Your task to perform on an android device: check battery use Image 0: 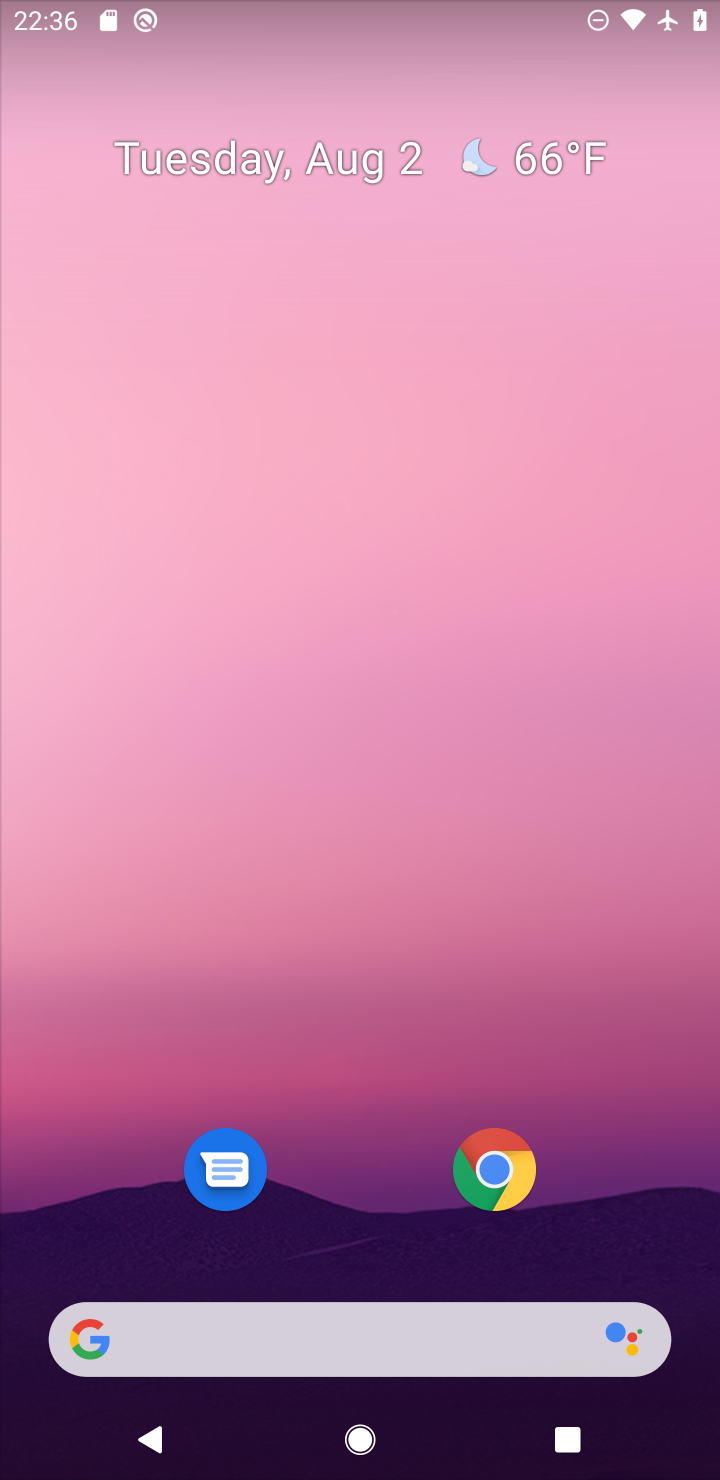
Step 0: drag from (338, 1249) to (310, 55)
Your task to perform on an android device: check battery use Image 1: 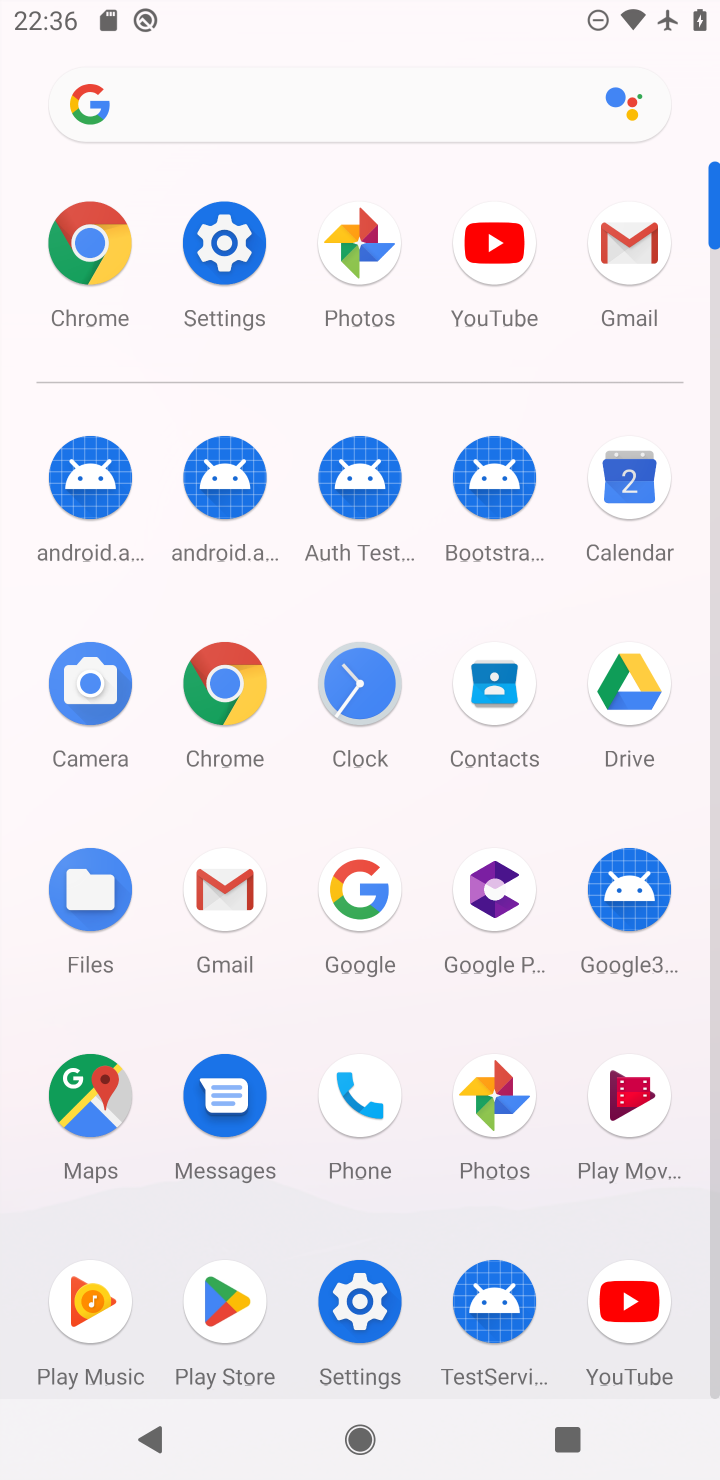
Step 1: click (203, 231)
Your task to perform on an android device: check battery use Image 2: 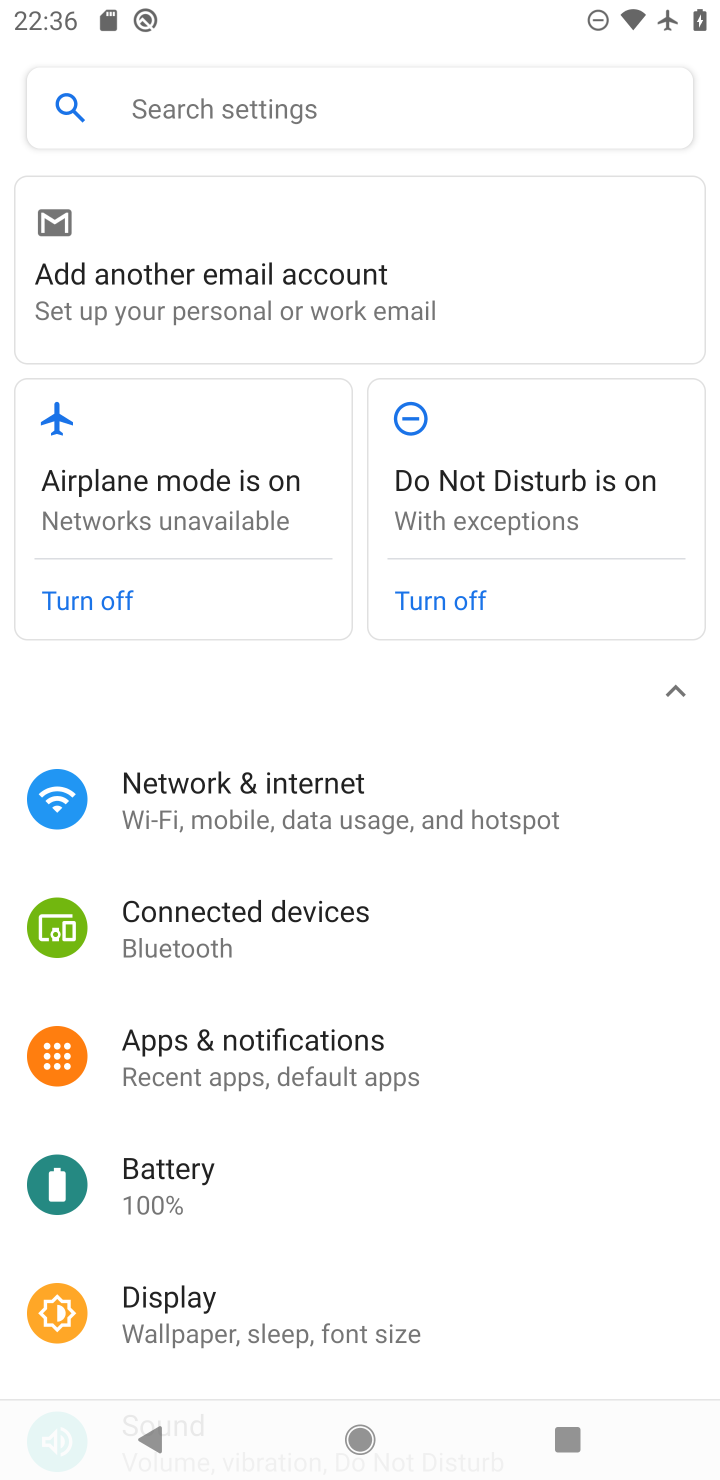
Step 2: click (130, 1176)
Your task to perform on an android device: check battery use Image 3: 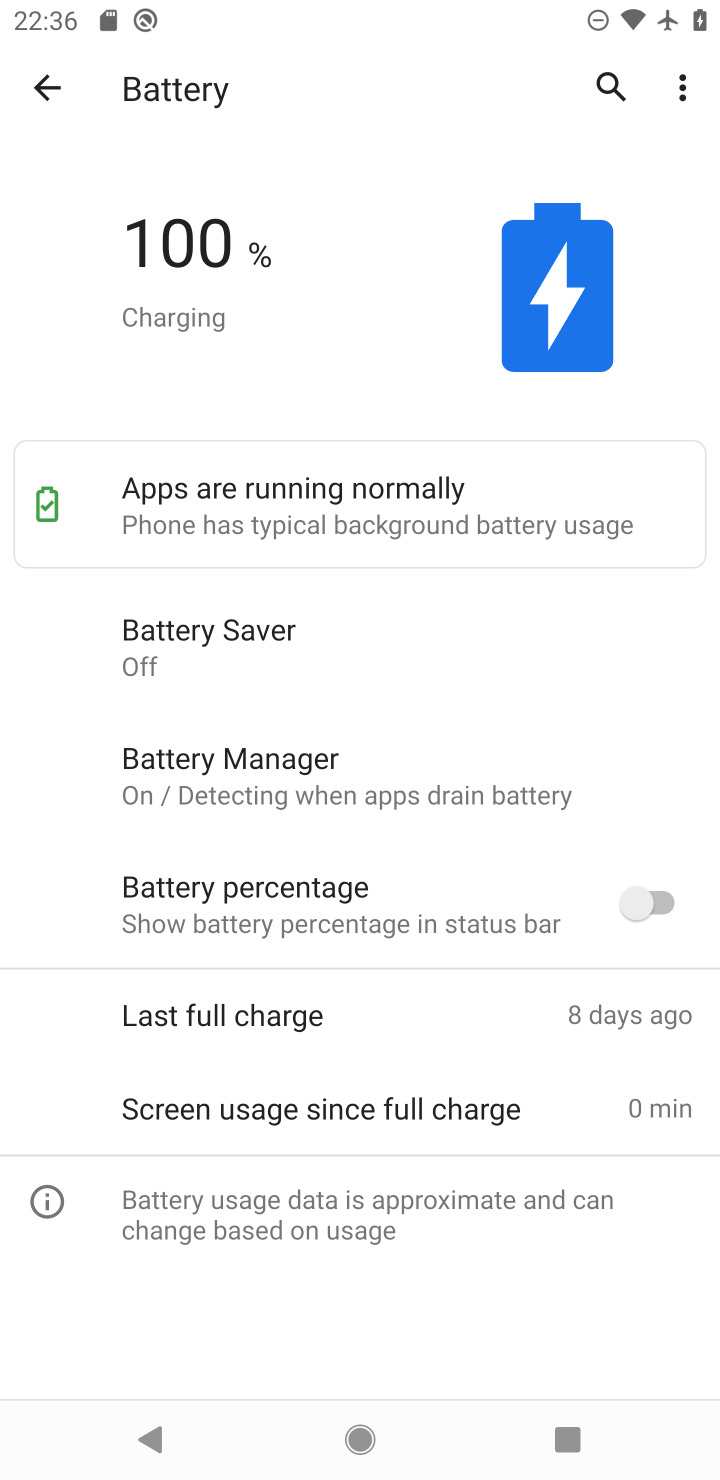
Step 3: click (681, 87)
Your task to perform on an android device: check battery use Image 4: 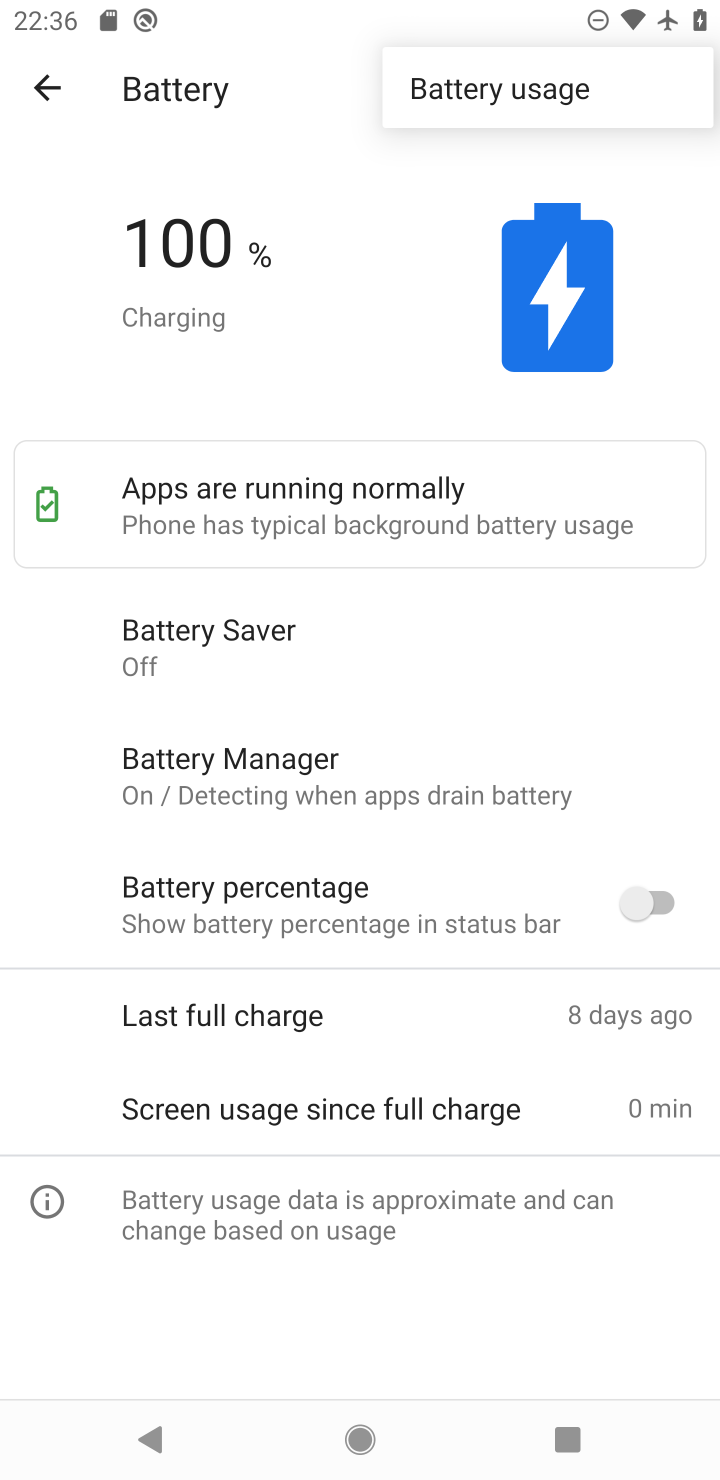
Step 4: click (543, 91)
Your task to perform on an android device: check battery use Image 5: 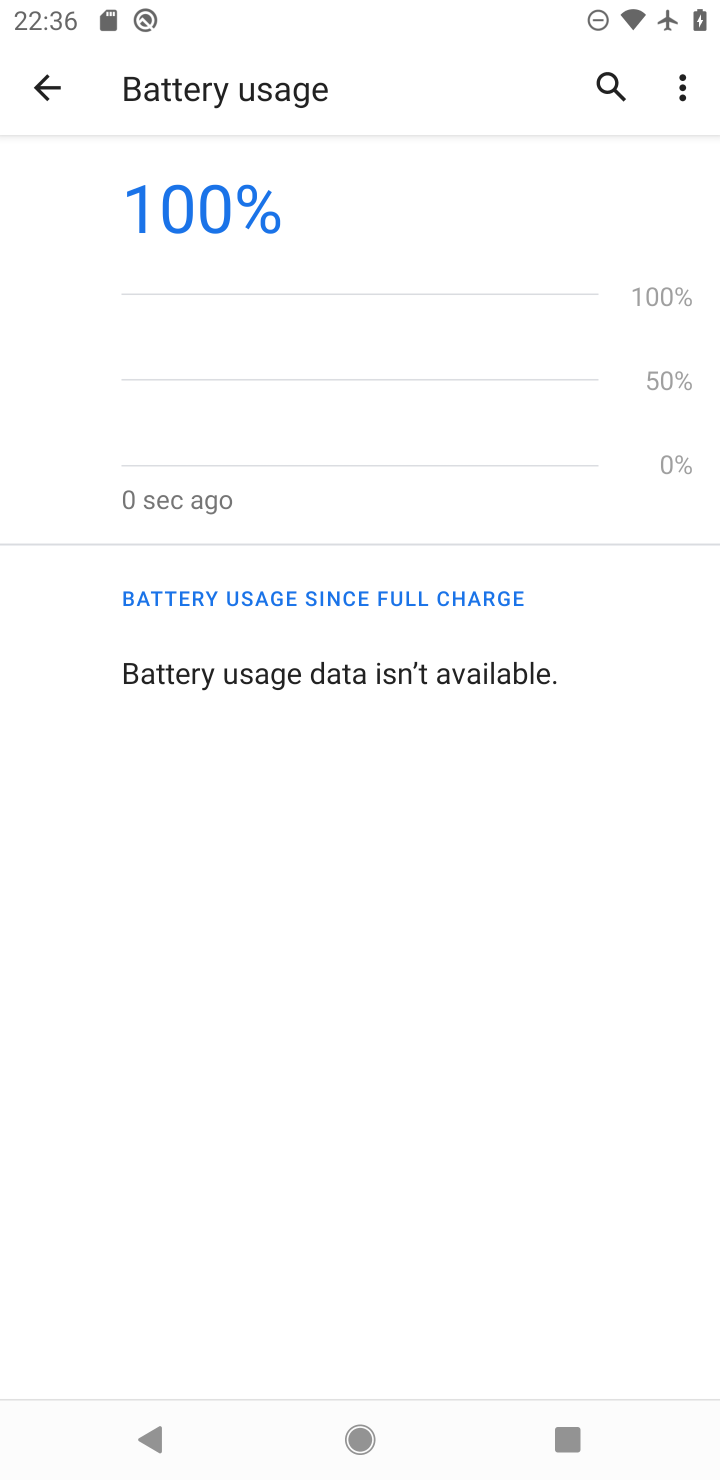
Step 5: task complete